Your task to perform on an android device: turn off priority inbox in the gmail app Image 0: 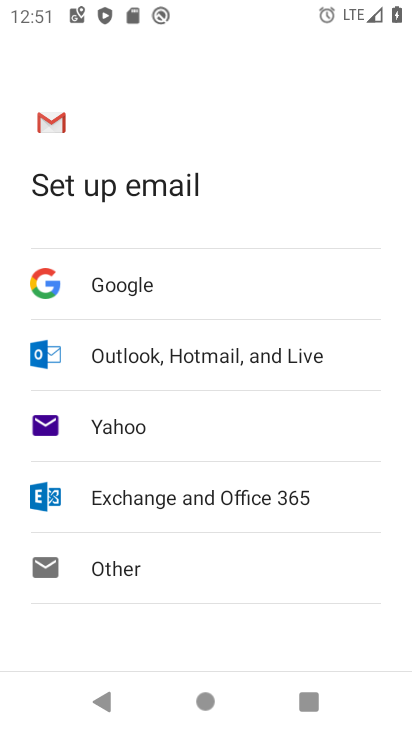
Step 0: press home button
Your task to perform on an android device: turn off priority inbox in the gmail app Image 1: 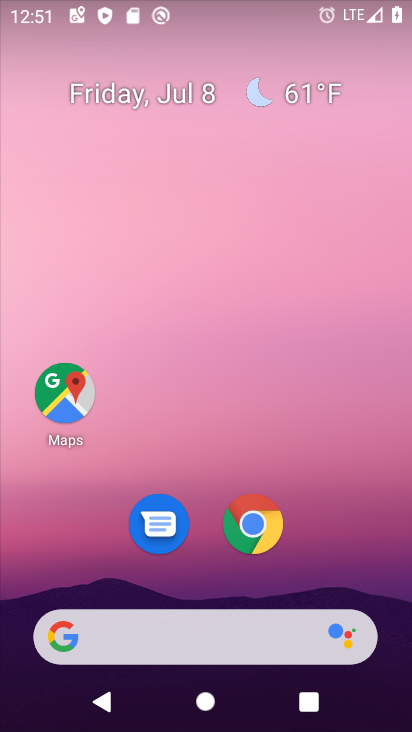
Step 1: drag from (306, 556) to (311, 51)
Your task to perform on an android device: turn off priority inbox in the gmail app Image 2: 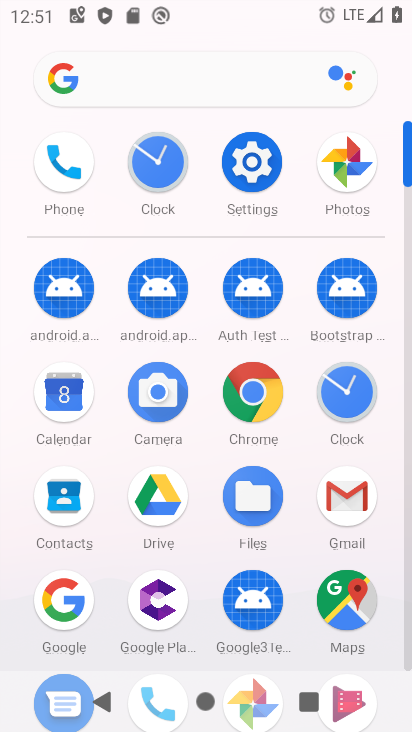
Step 2: click (338, 484)
Your task to perform on an android device: turn off priority inbox in the gmail app Image 3: 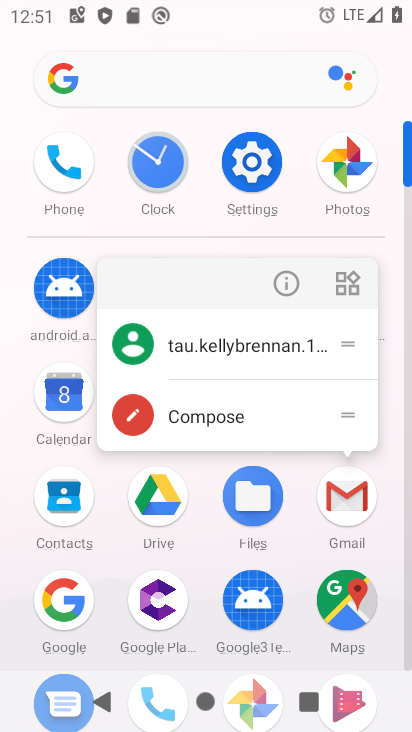
Step 3: click (352, 513)
Your task to perform on an android device: turn off priority inbox in the gmail app Image 4: 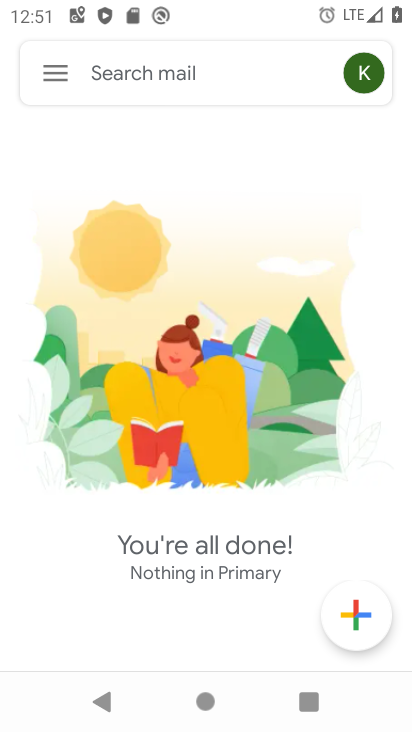
Step 4: click (50, 69)
Your task to perform on an android device: turn off priority inbox in the gmail app Image 5: 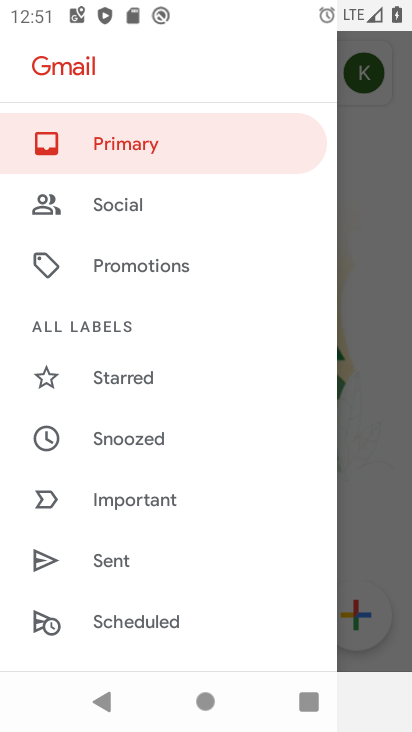
Step 5: drag from (165, 552) to (167, 234)
Your task to perform on an android device: turn off priority inbox in the gmail app Image 6: 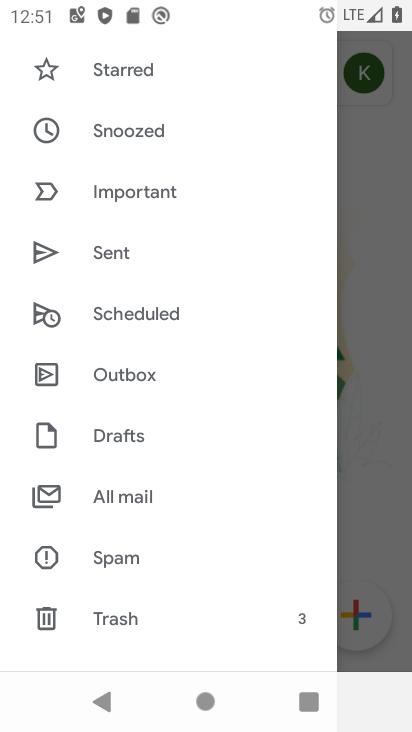
Step 6: drag from (177, 473) to (214, 182)
Your task to perform on an android device: turn off priority inbox in the gmail app Image 7: 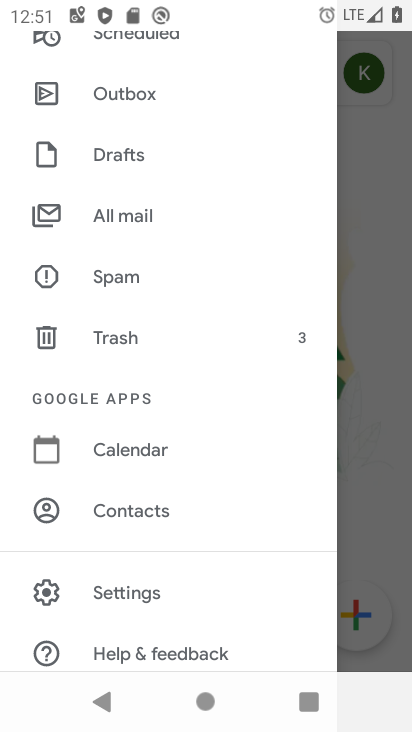
Step 7: click (135, 591)
Your task to perform on an android device: turn off priority inbox in the gmail app Image 8: 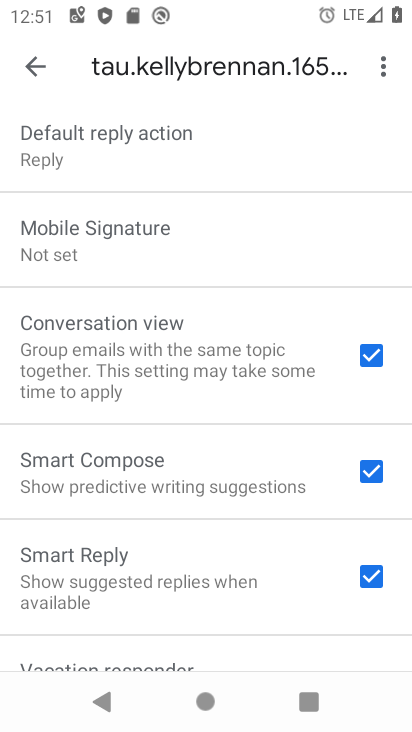
Step 8: drag from (181, 454) to (186, 658)
Your task to perform on an android device: turn off priority inbox in the gmail app Image 9: 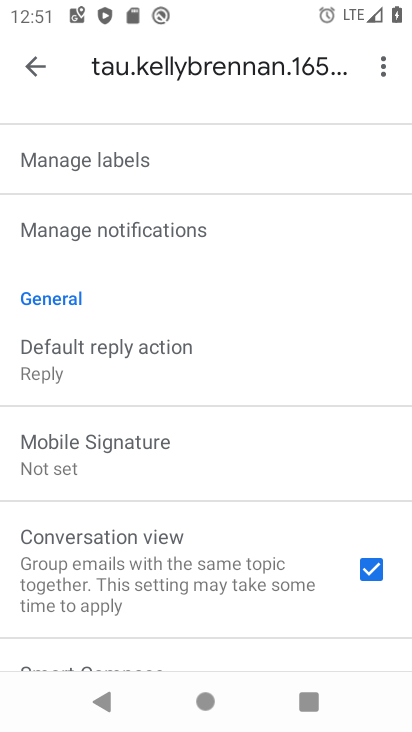
Step 9: drag from (247, 323) to (259, 580)
Your task to perform on an android device: turn off priority inbox in the gmail app Image 10: 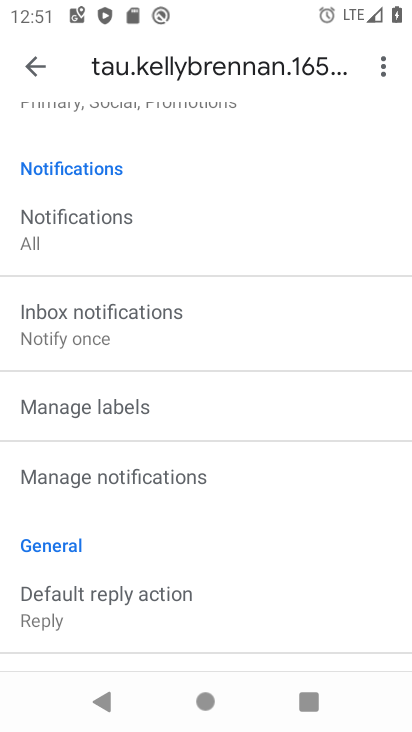
Step 10: drag from (203, 232) to (239, 562)
Your task to perform on an android device: turn off priority inbox in the gmail app Image 11: 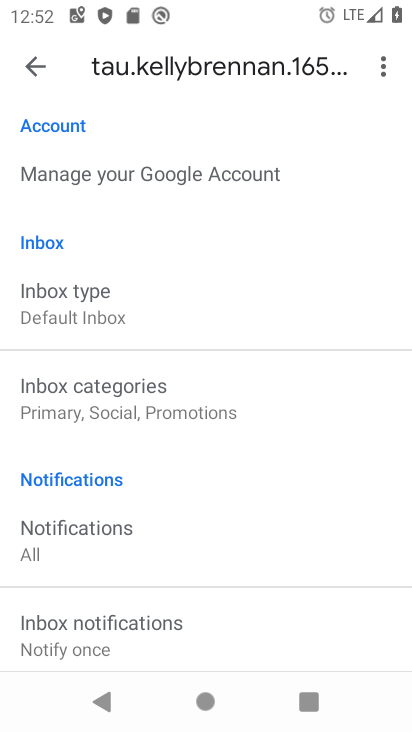
Step 11: drag from (145, 269) to (158, 468)
Your task to perform on an android device: turn off priority inbox in the gmail app Image 12: 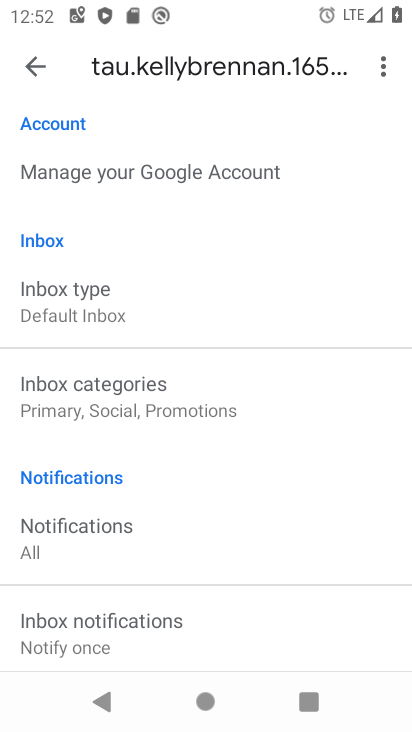
Step 12: click (68, 302)
Your task to perform on an android device: turn off priority inbox in the gmail app Image 13: 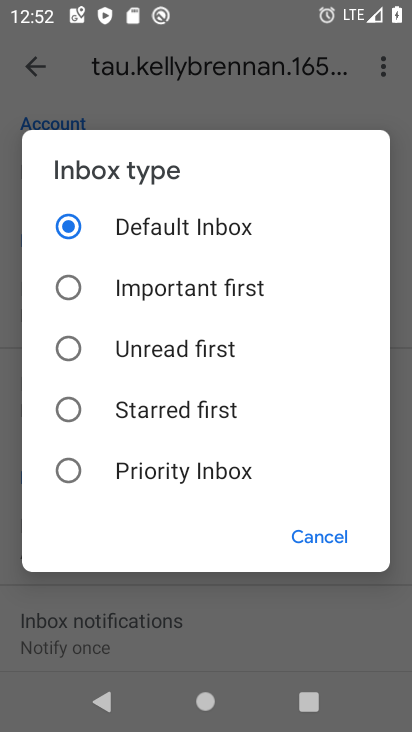
Step 13: click (331, 537)
Your task to perform on an android device: turn off priority inbox in the gmail app Image 14: 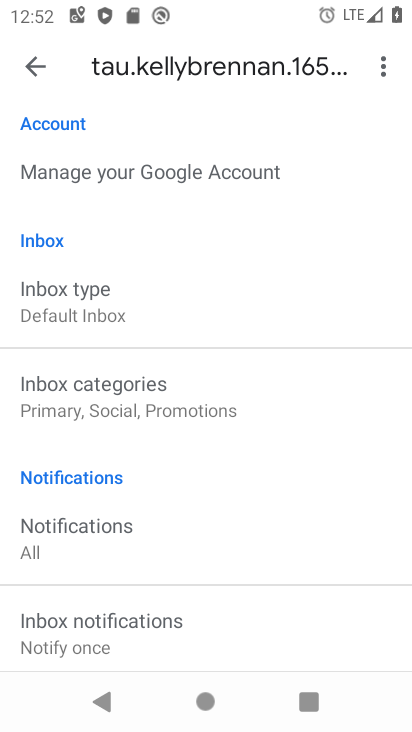
Step 14: task complete